Your task to perform on an android device: turn on the 24-hour format for clock Image 0: 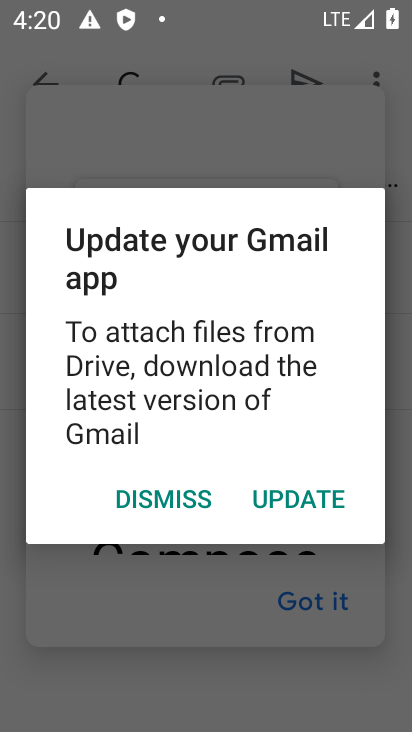
Step 0: press home button
Your task to perform on an android device: turn on the 24-hour format for clock Image 1: 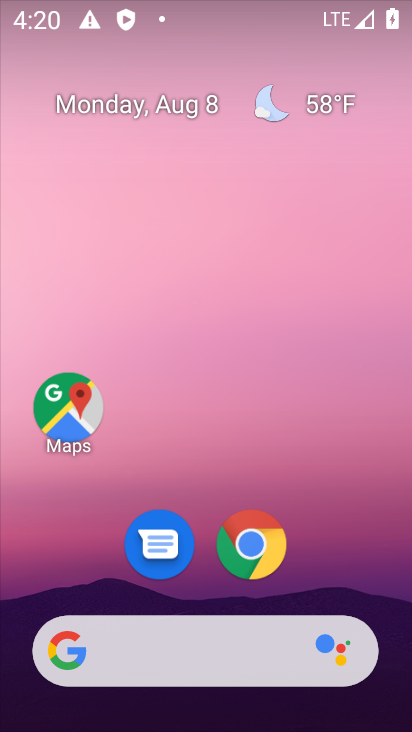
Step 1: drag from (265, 551) to (322, 123)
Your task to perform on an android device: turn on the 24-hour format for clock Image 2: 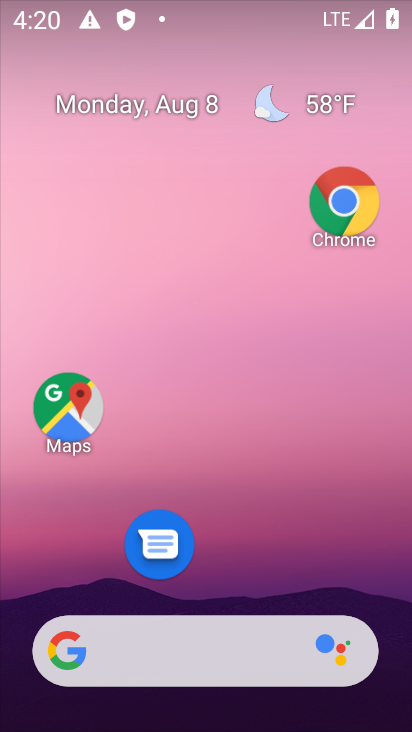
Step 2: drag from (239, 618) to (317, 192)
Your task to perform on an android device: turn on the 24-hour format for clock Image 3: 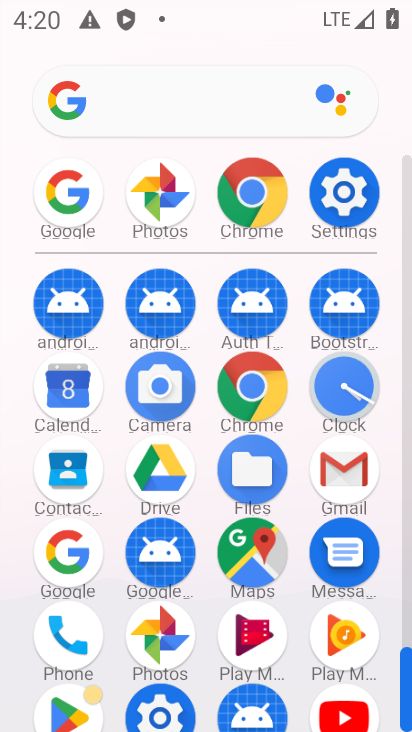
Step 3: click (357, 392)
Your task to perform on an android device: turn on the 24-hour format for clock Image 4: 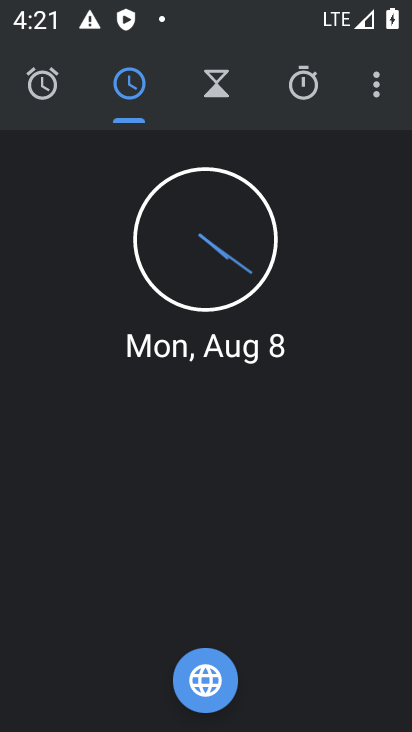
Step 4: click (379, 106)
Your task to perform on an android device: turn on the 24-hour format for clock Image 5: 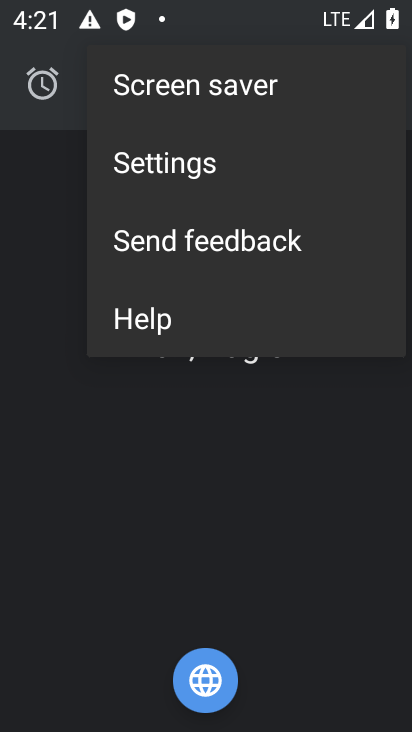
Step 5: click (161, 161)
Your task to perform on an android device: turn on the 24-hour format for clock Image 6: 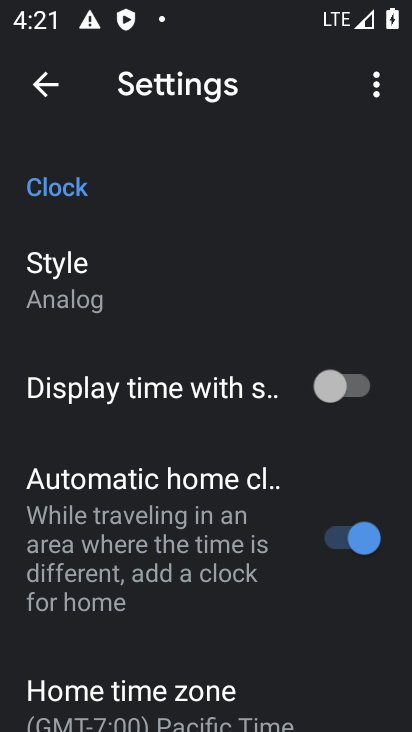
Step 6: drag from (237, 629) to (287, 394)
Your task to perform on an android device: turn on the 24-hour format for clock Image 7: 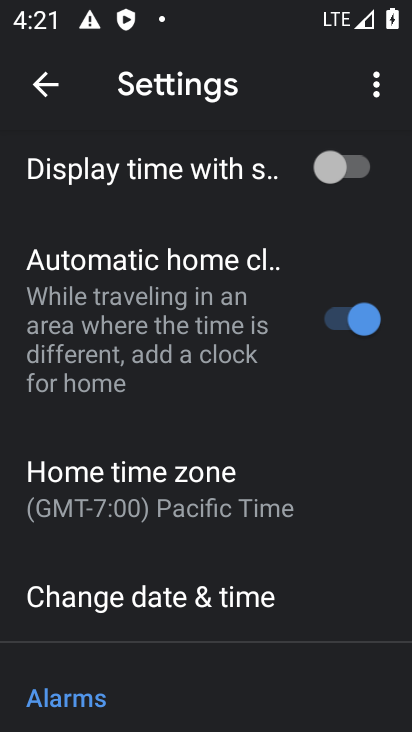
Step 7: click (257, 610)
Your task to perform on an android device: turn on the 24-hour format for clock Image 8: 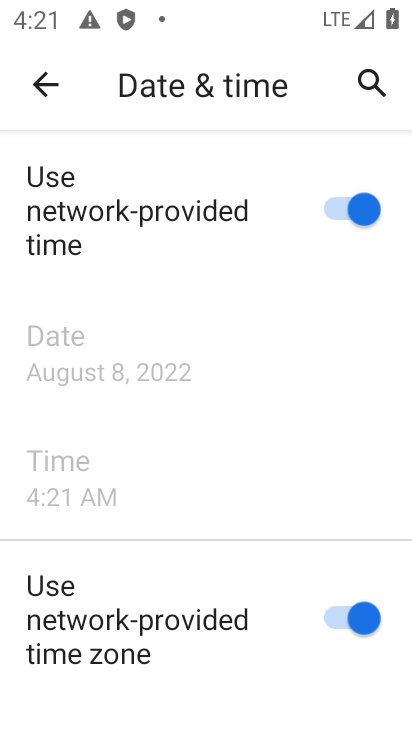
Step 8: task complete